Your task to perform on an android device: toggle data saver in the chrome app Image 0: 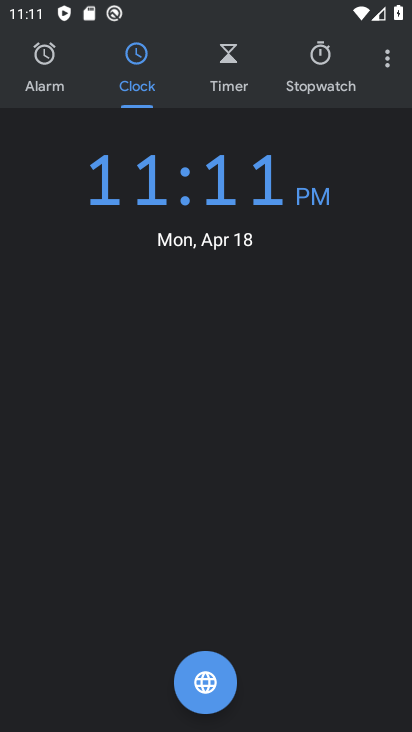
Step 0: press back button
Your task to perform on an android device: toggle data saver in the chrome app Image 1: 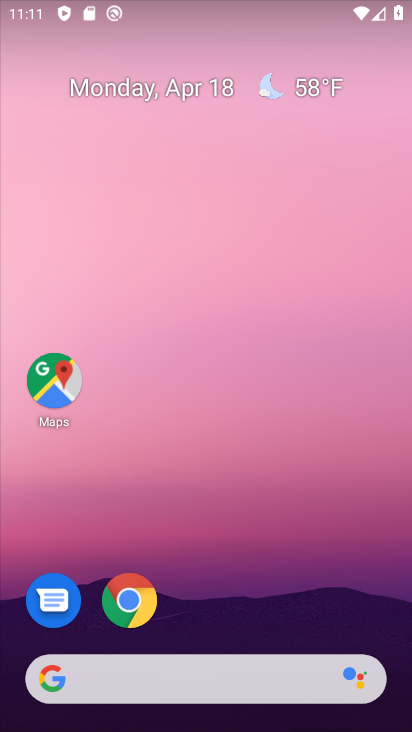
Step 1: click (130, 591)
Your task to perform on an android device: toggle data saver in the chrome app Image 2: 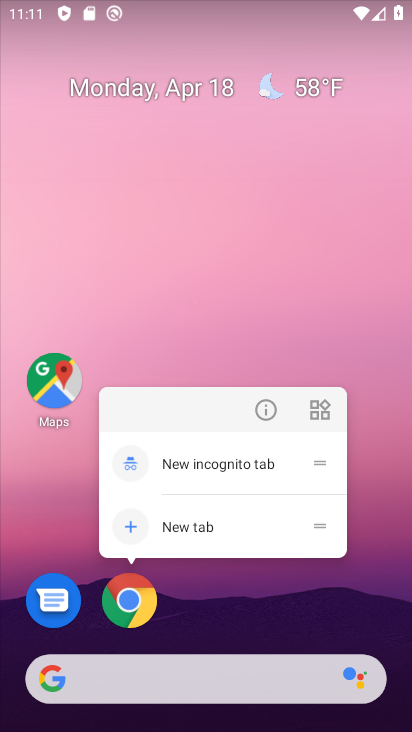
Step 2: click (130, 607)
Your task to perform on an android device: toggle data saver in the chrome app Image 3: 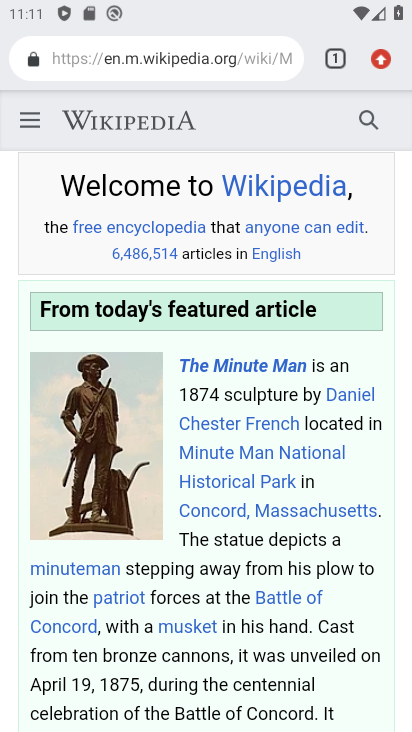
Step 3: click (380, 61)
Your task to perform on an android device: toggle data saver in the chrome app Image 4: 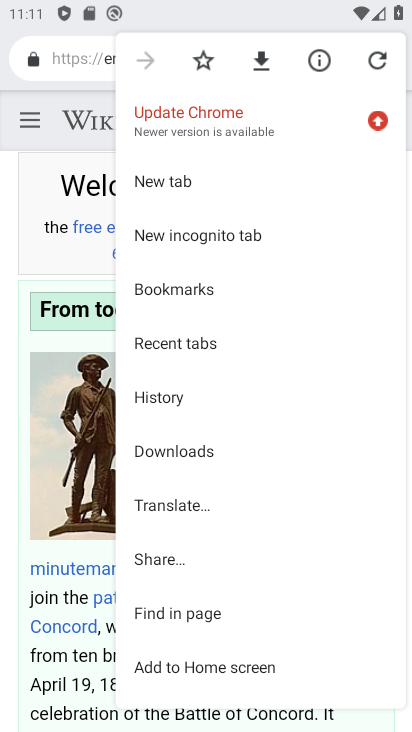
Step 4: drag from (189, 622) to (282, 72)
Your task to perform on an android device: toggle data saver in the chrome app Image 5: 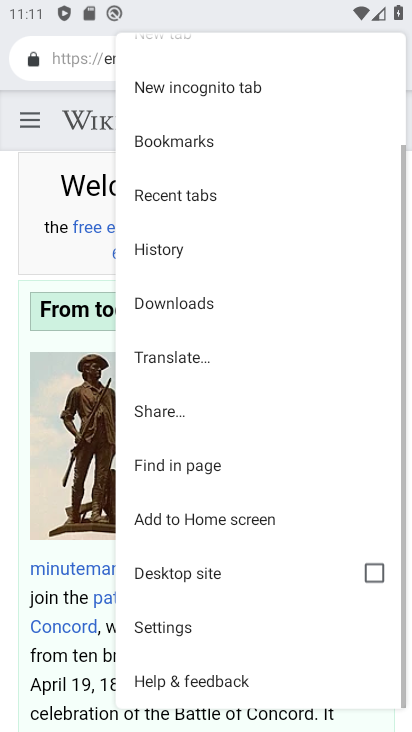
Step 5: click (164, 625)
Your task to perform on an android device: toggle data saver in the chrome app Image 6: 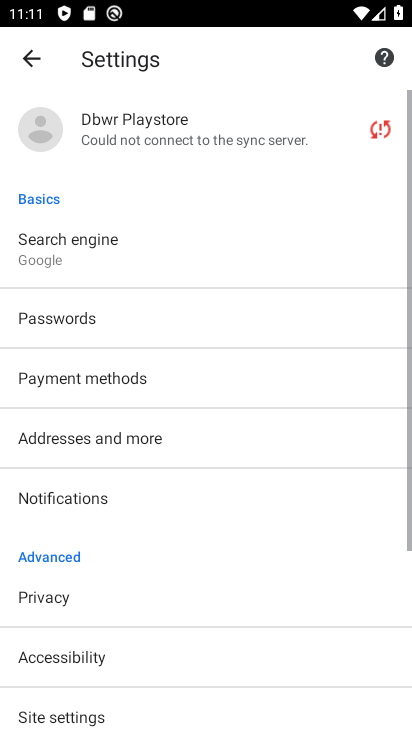
Step 6: drag from (166, 495) to (252, 41)
Your task to perform on an android device: toggle data saver in the chrome app Image 7: 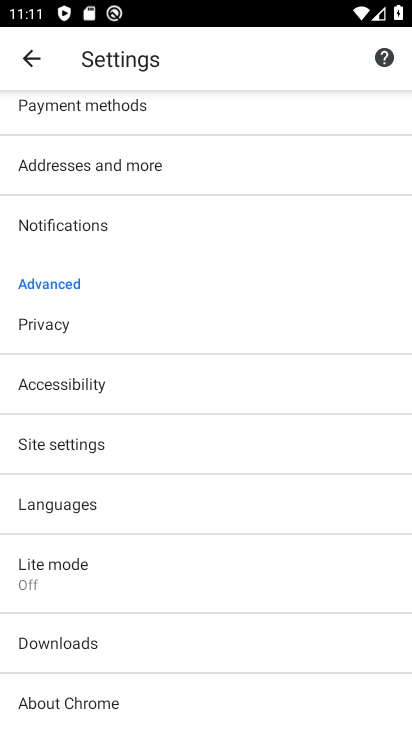
Step 7: click (37, 576)
Your task to perform on an android device: toggle data saver in the chrome app Image 8: 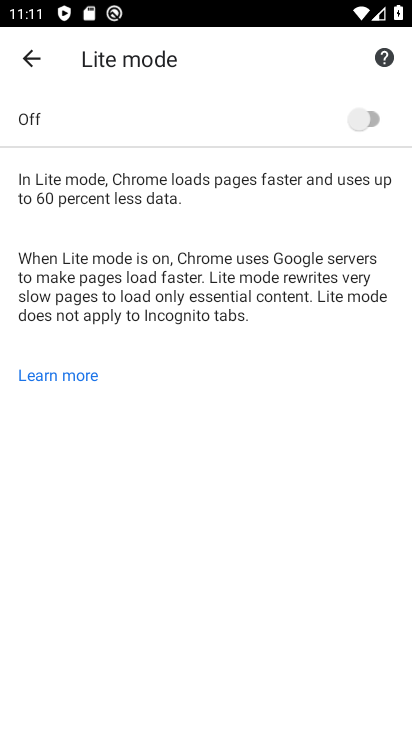
Step 8: click (369, 110)
Your task to perform on an android device: toggle data saver in the chrome app Image 9: 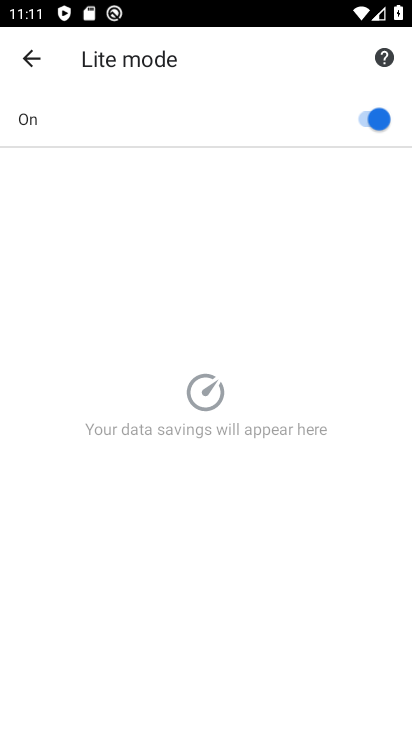
Step 9: task complete